Your task to perform on an android device: Search for a new 65" TV at Best Buy Image 0: 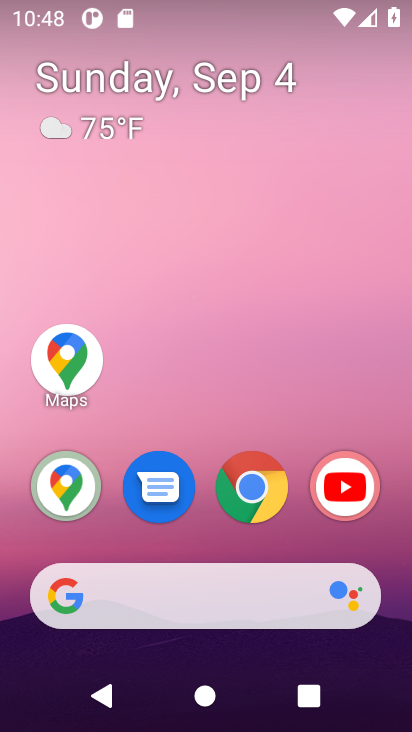
Step 0: click (148, 497)
Your task to perform on an android device: Search for a new 65" TV at Best Buy Image 1: 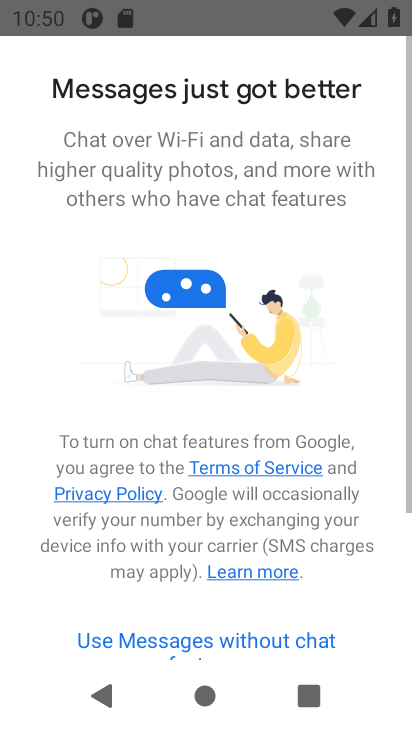
Step 1: task complete